Your task to perform on an android device: Open Google Chrome and open the bookmarks view Image 0: 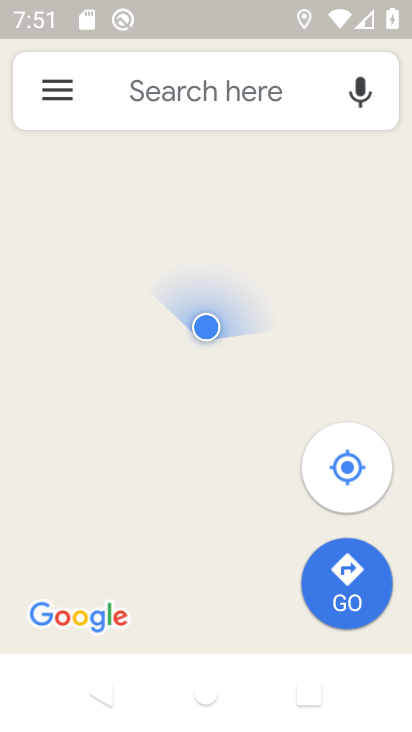
Step 0: press home button
Your task to perform on an android device: Open Google Chrome and open the bookmarks view Image 1: 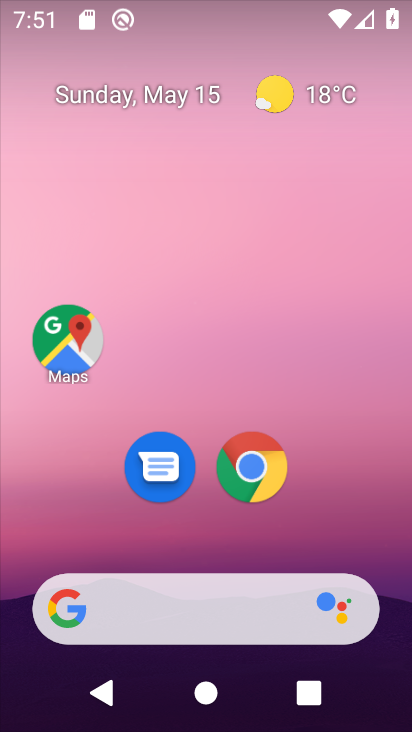
Step 1: click (260, 471)
Your task to perform on an android device: Open Google Chrome and open the bookmarks view Image 2: 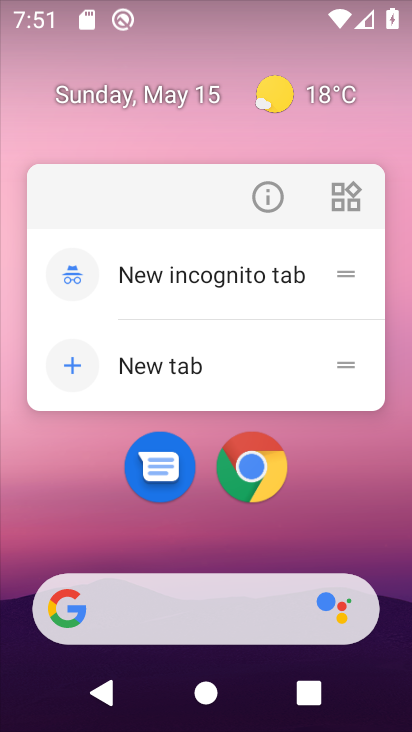
Step 2: click (253, 466)
Your task to perform on an android device: Open Google Chrome and open the bookmarks view Image 3: 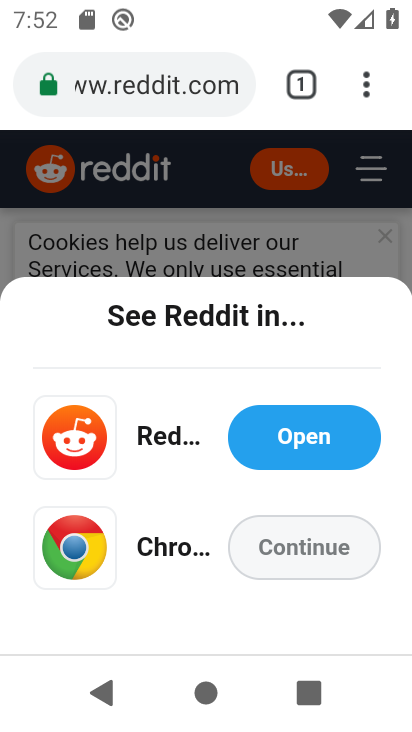
Step 3: click (373, 87)
Your task to perform on an android device: Open Google Chrome and open the bookmarks view Image 4: 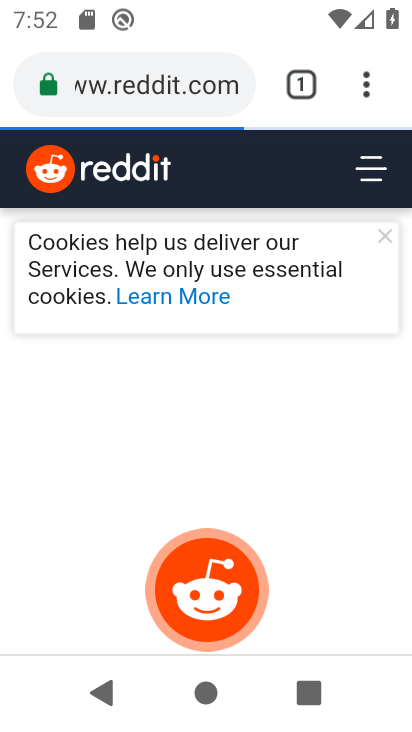
Step 4: click (365, 87)
Your task to perform on an android device: Open Google Chrome and open the bookmarks view Image 5: 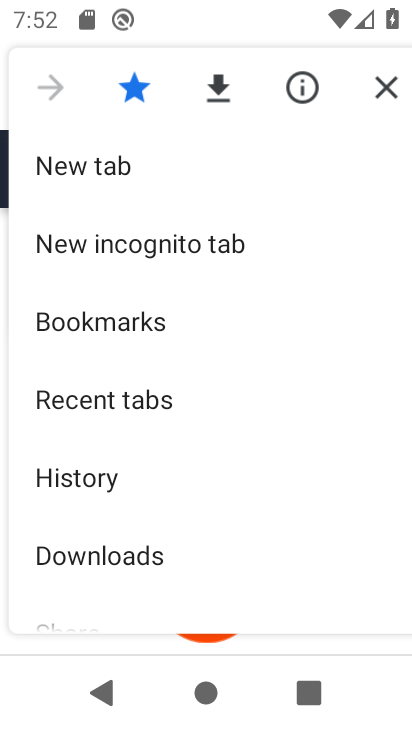
Step 5: click (58, 314)
Your task to perform on an android device: Open Google Chrome and open the bookmarks view Image 6: 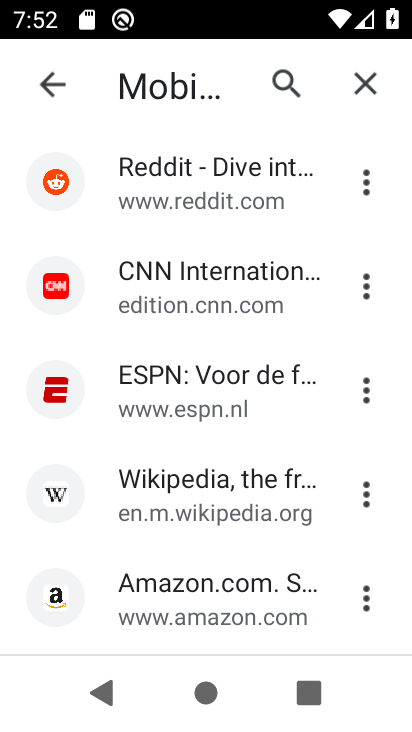
Step 6: task complete